Your task to perform on an android device: toggle wifi Image 0: 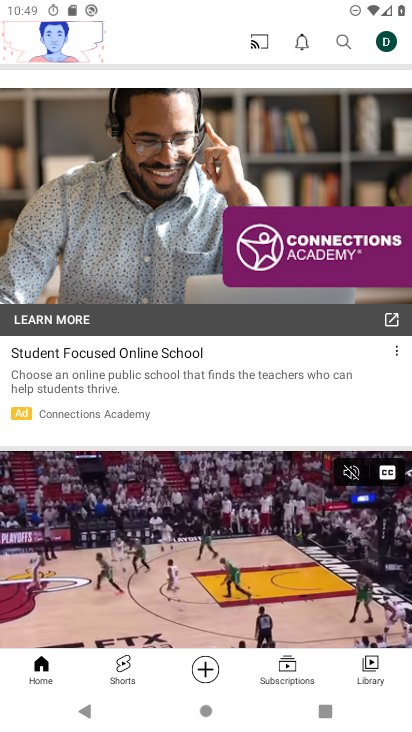
Step 0: press home button
Your task to perform on an android device: toggle wifi Image 1: 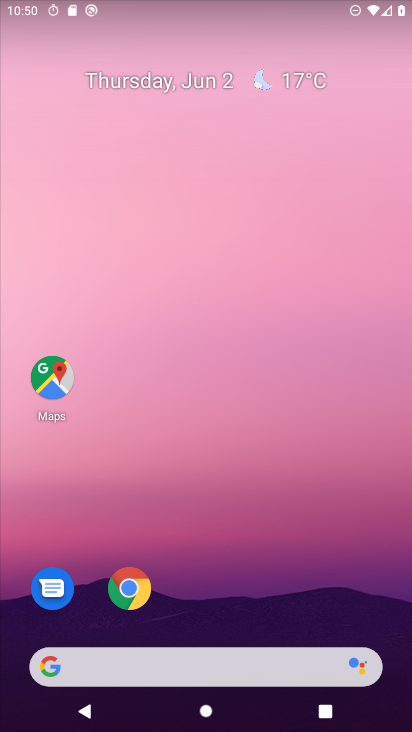
Step 1: drag from (237, 631) to (295, 223)
Your task to perform on an android device: toggle wifi Image 2: 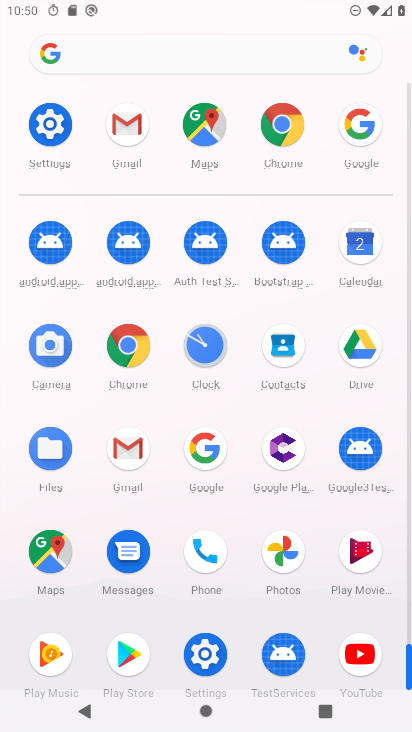
Step 2: click (64, 129)
Your task to perform on an android device: toggle wifi Image 3: 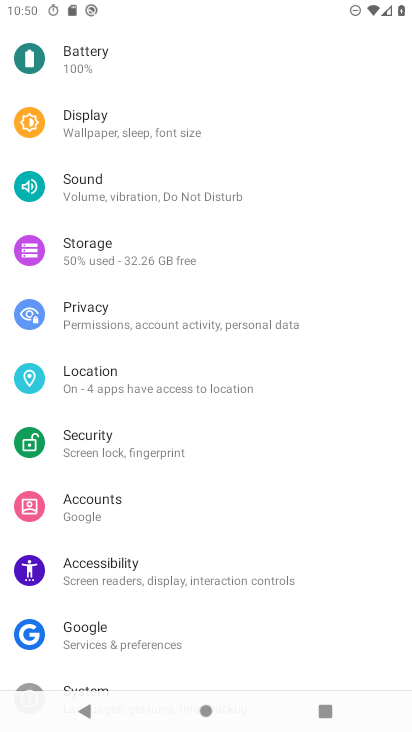
Step 3: drag from (201, 187) to (157, 428)
Your task to perform on an android device: toggle wifi Image 4: 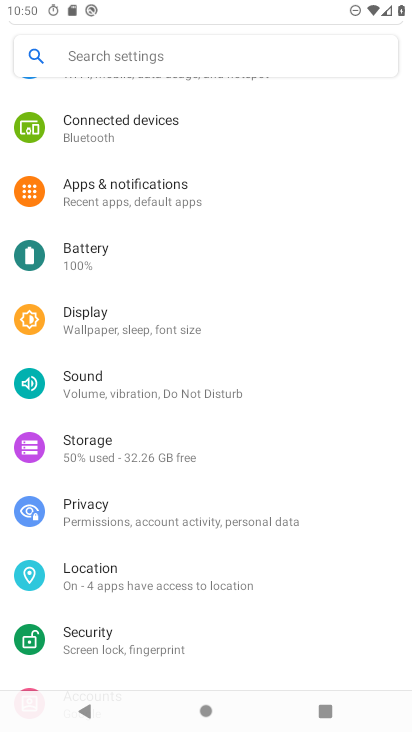
Step 4: drag from (172, 252) to (130, 485)
Your task to perform on an android device: toggle wifi Image 5: 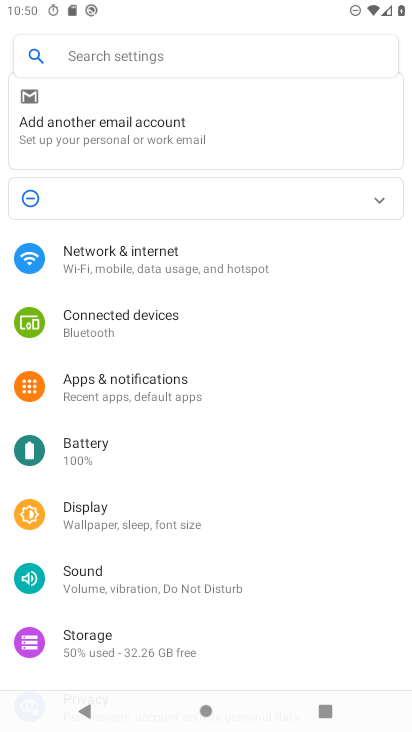
Step 5: click (236, 257)
Your task to perform on an android device: toggle wifi Image 6: 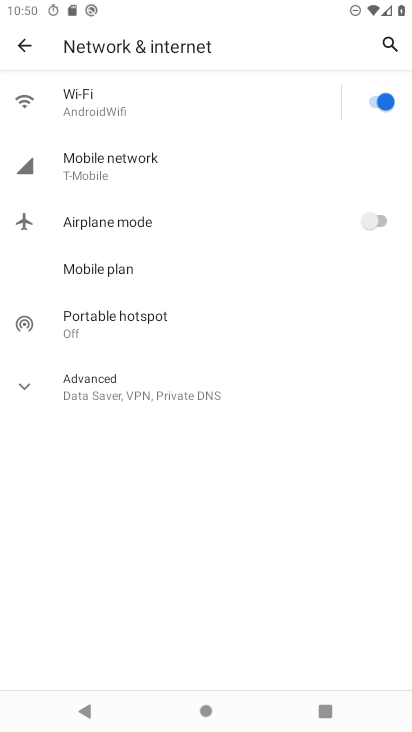
Step 6: click (378, 107)
Your task to perform on an android device: toggle wifi Image 7: 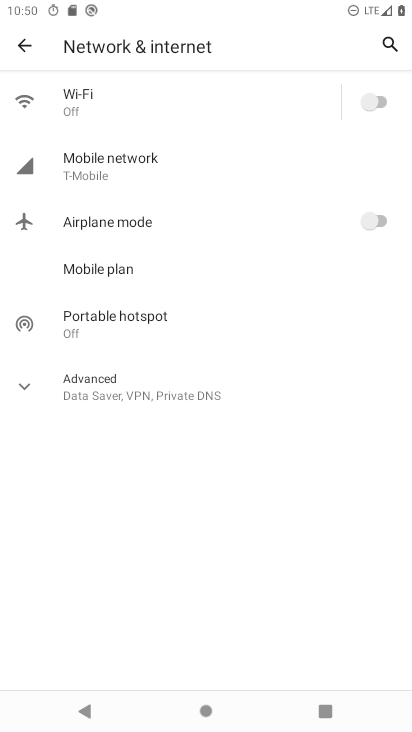
Step 7: task complete